Your task to perform on an android device: Show me the alarms in the clock app Image 0: 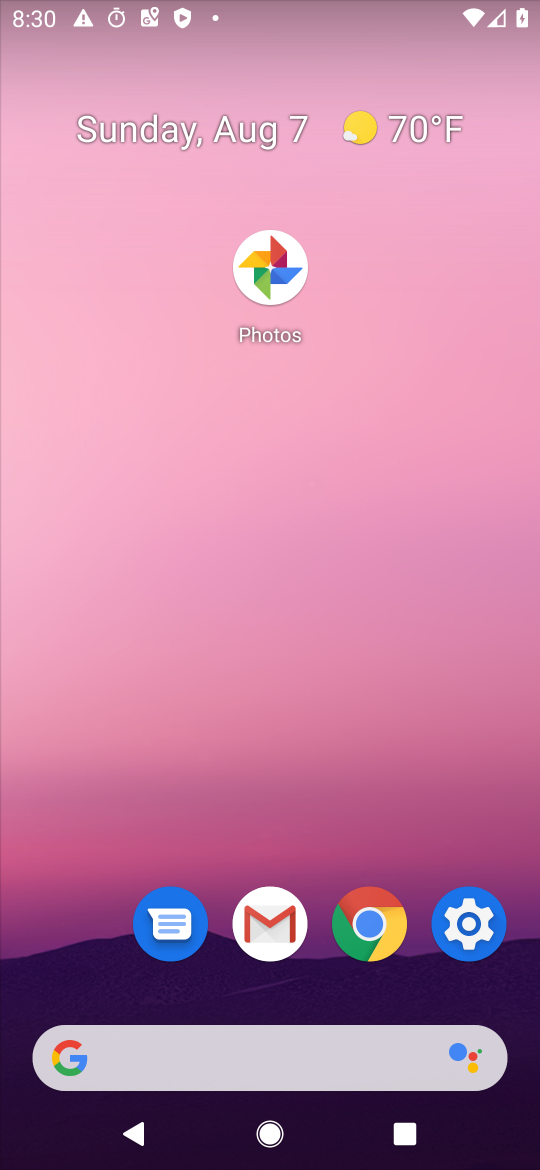
Step 0: drag from (389, 1035) to (263, 327)
Your task to perform on an android device: Show me the alarms in the clock app Image 1: 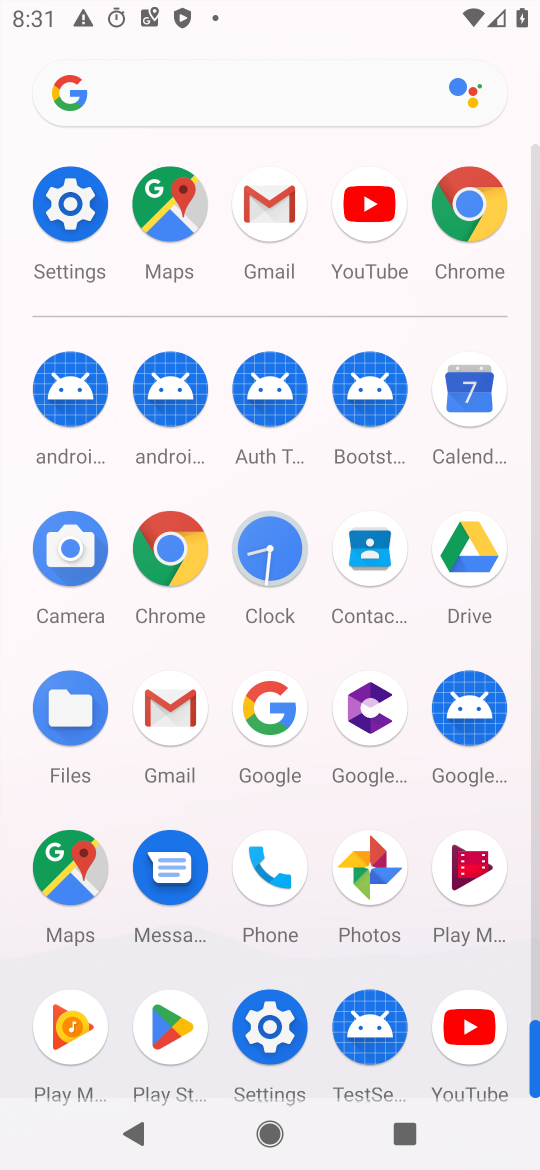
Step 1: click (263, 554)
Your task to perform on an android device: Show me the alarms in the clock app Image 2: 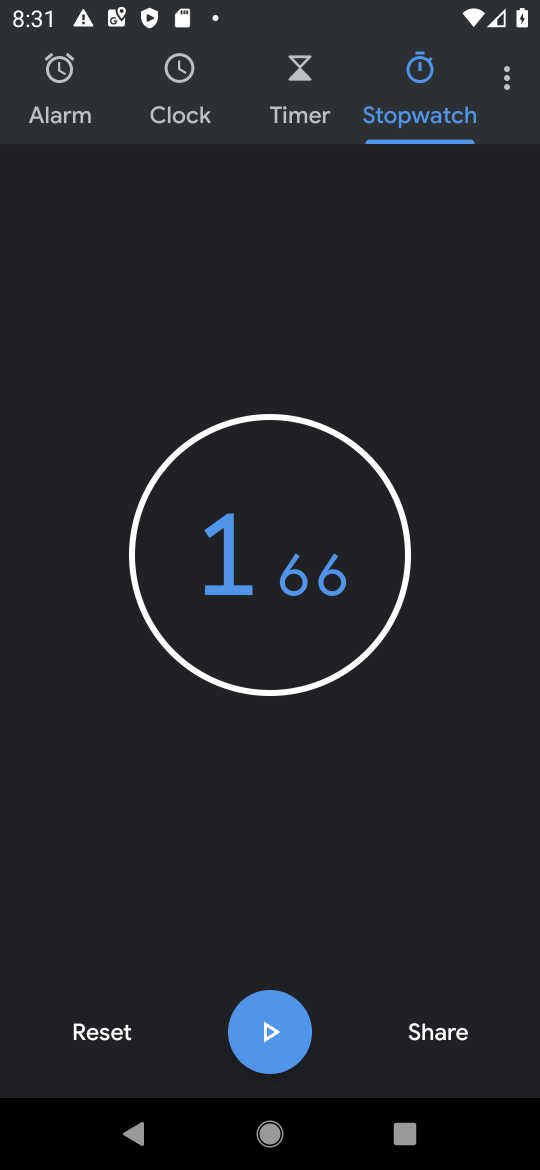
Step 2: click (495, 74)
Your task to perform on an android device: Show me the alarms in the clock app Image 3: 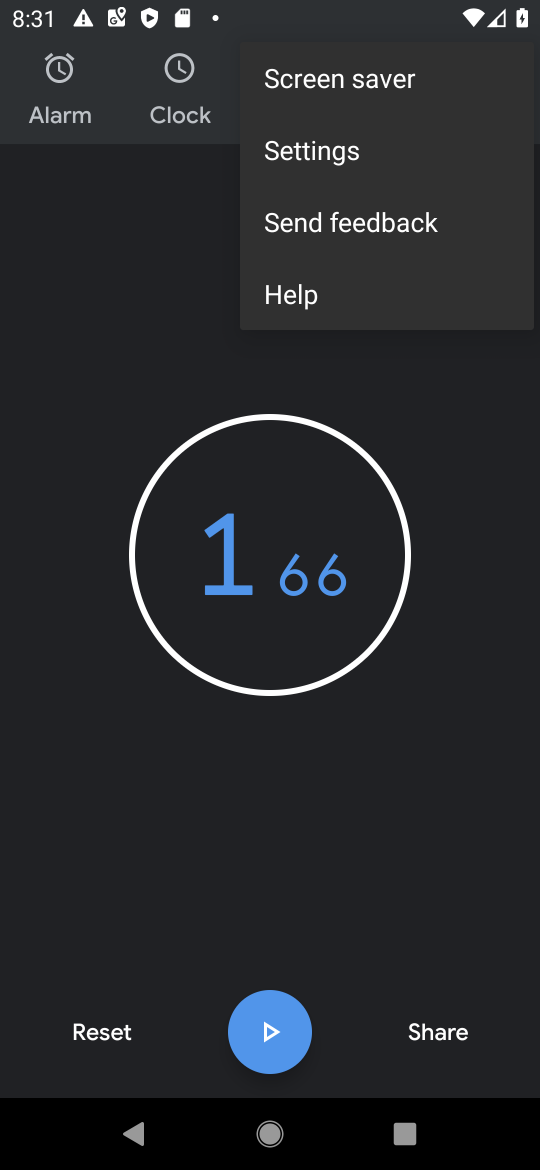
Step 3: click (59, 87)
Your task to perform on an android device: Show me the alarms in the clock app Image 4: 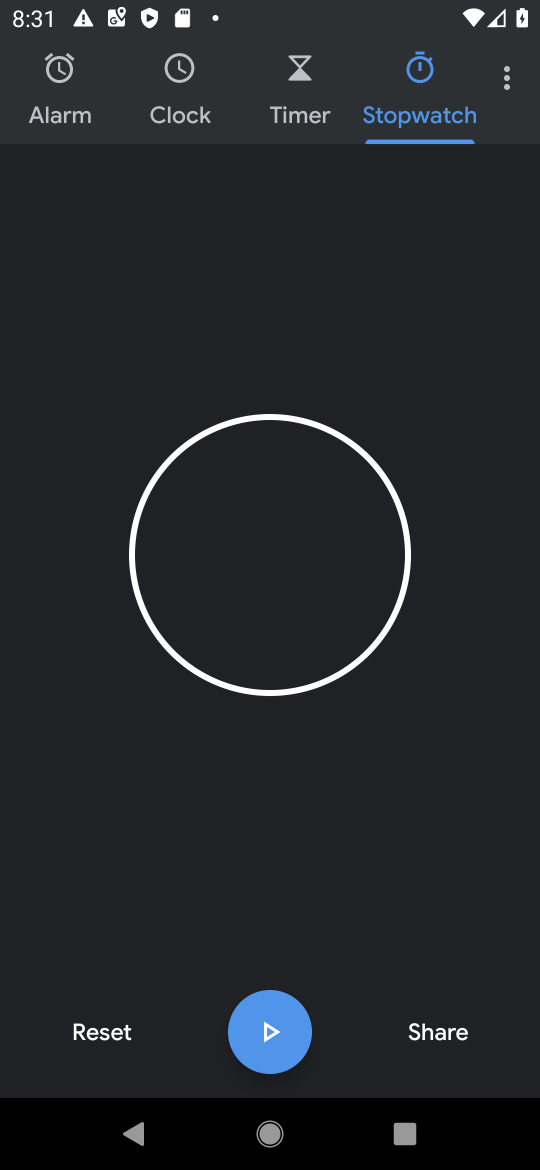
Step 4: click (65, 106)
Your task to perform on an android device: Show me the alarms in the clock app Image 5: 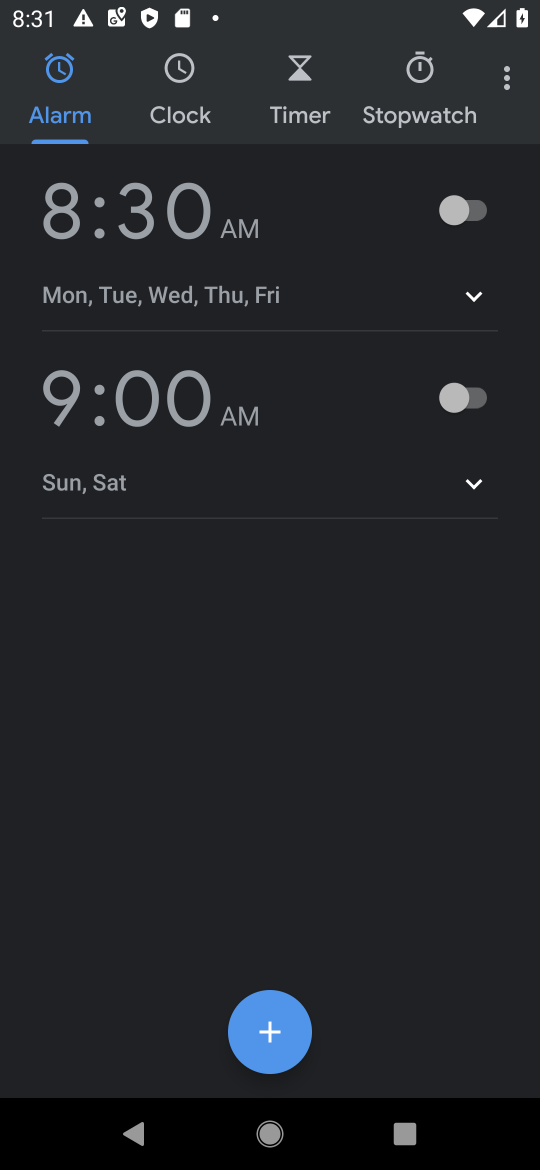
Step 5: click (480, 227)
Your task to perform on an android device: Show me the alarms in the clock app Image 6: 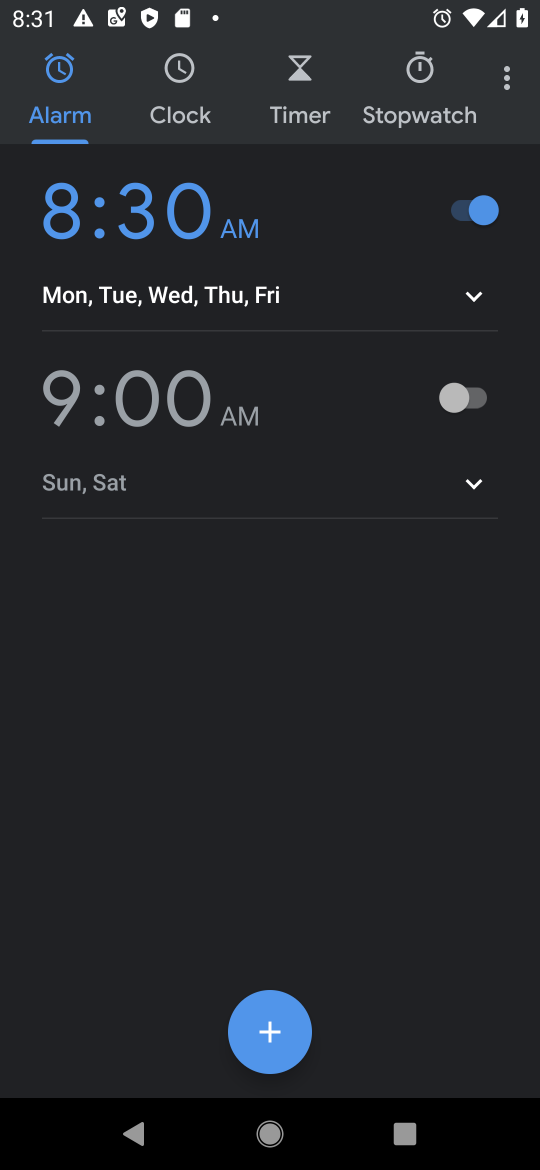
Step 6: task complete